Your task to perform on an android device: Search for usb-c on costco.com, select the first entry, add it to the cart, then select checkout. Image 0: 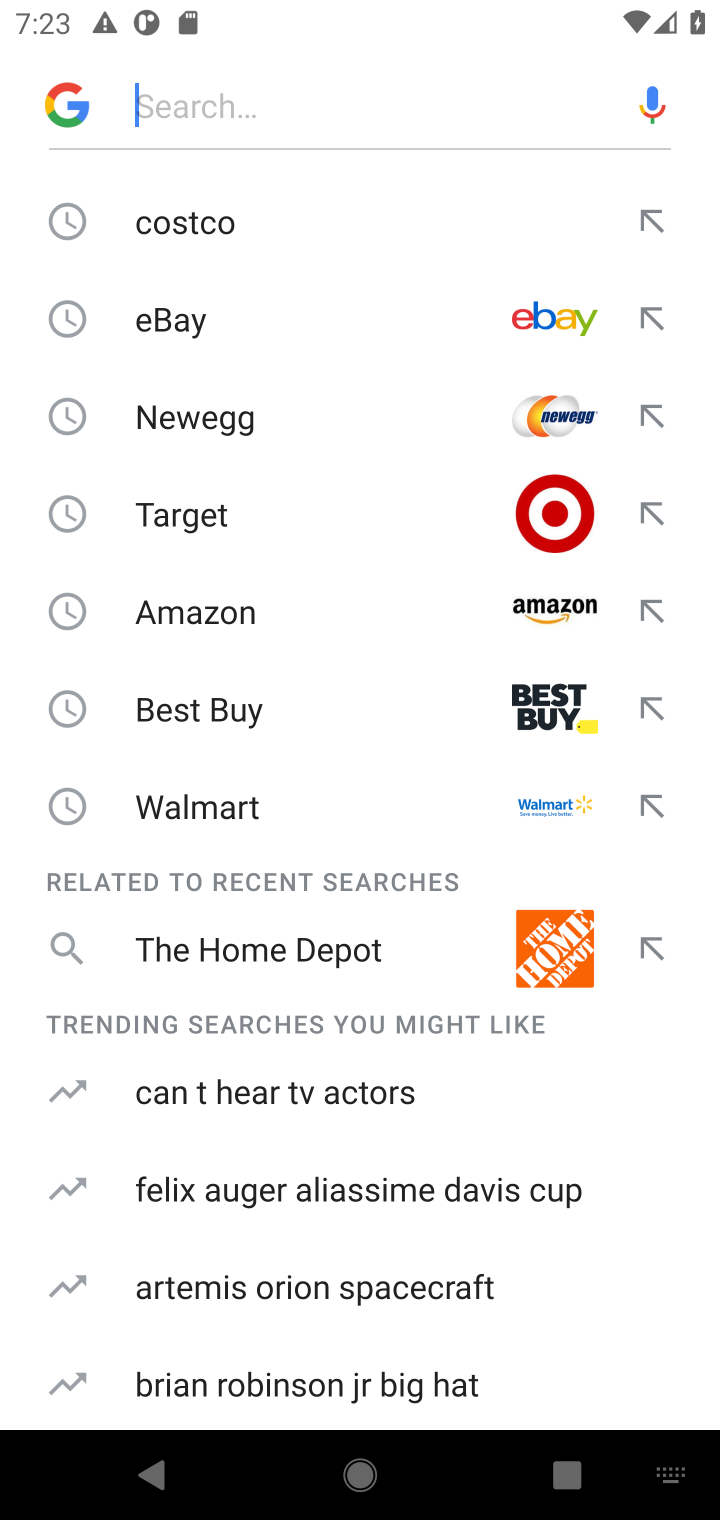
Step 0: press home button
Your task to perform on an android device: Search for usb-c on costco.com, select the first entry, add it to the cart, then select checkout. Image 1: 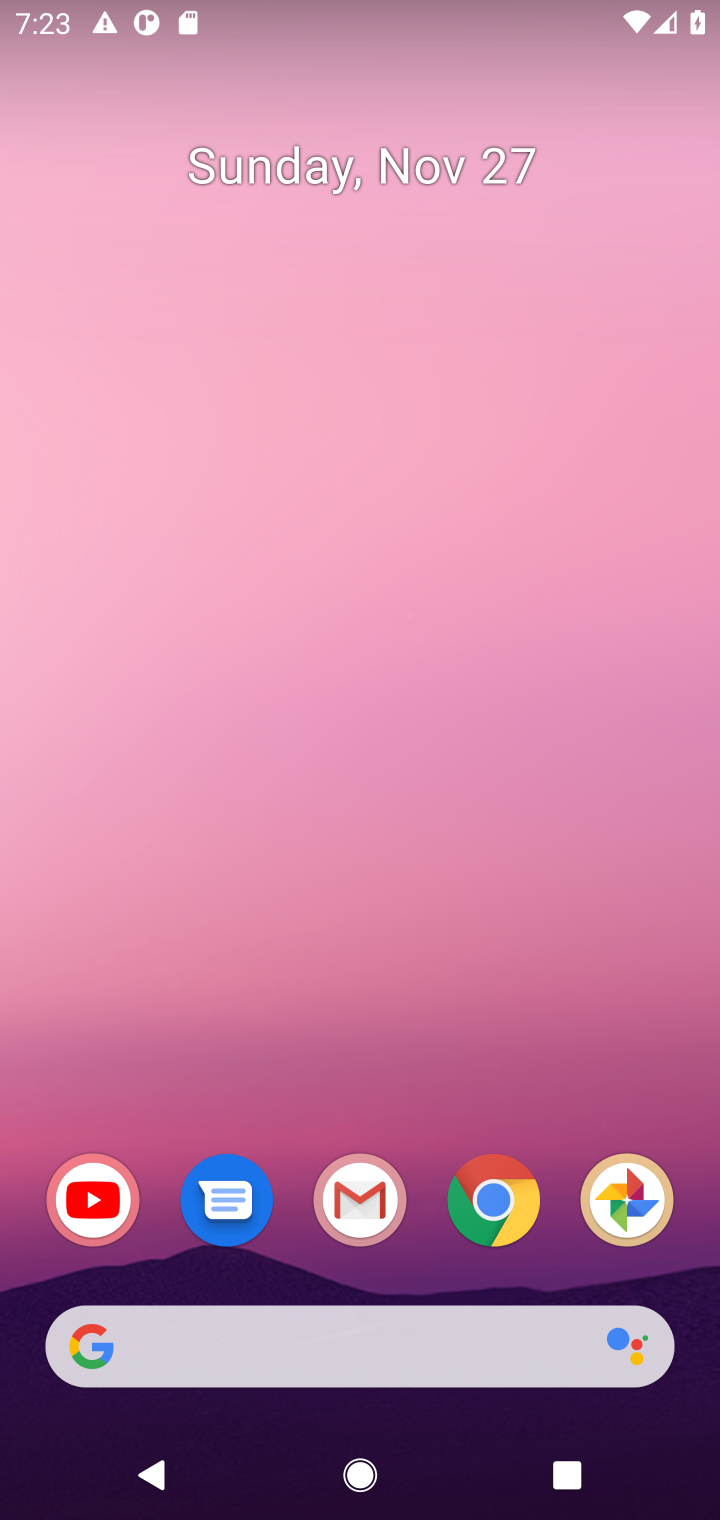
Step 1: click (497, 1197)
Your task to perform on an android device: Search for usb-c on costco.com, select the first entry, add it to the cart, then select checkout. Image 2: 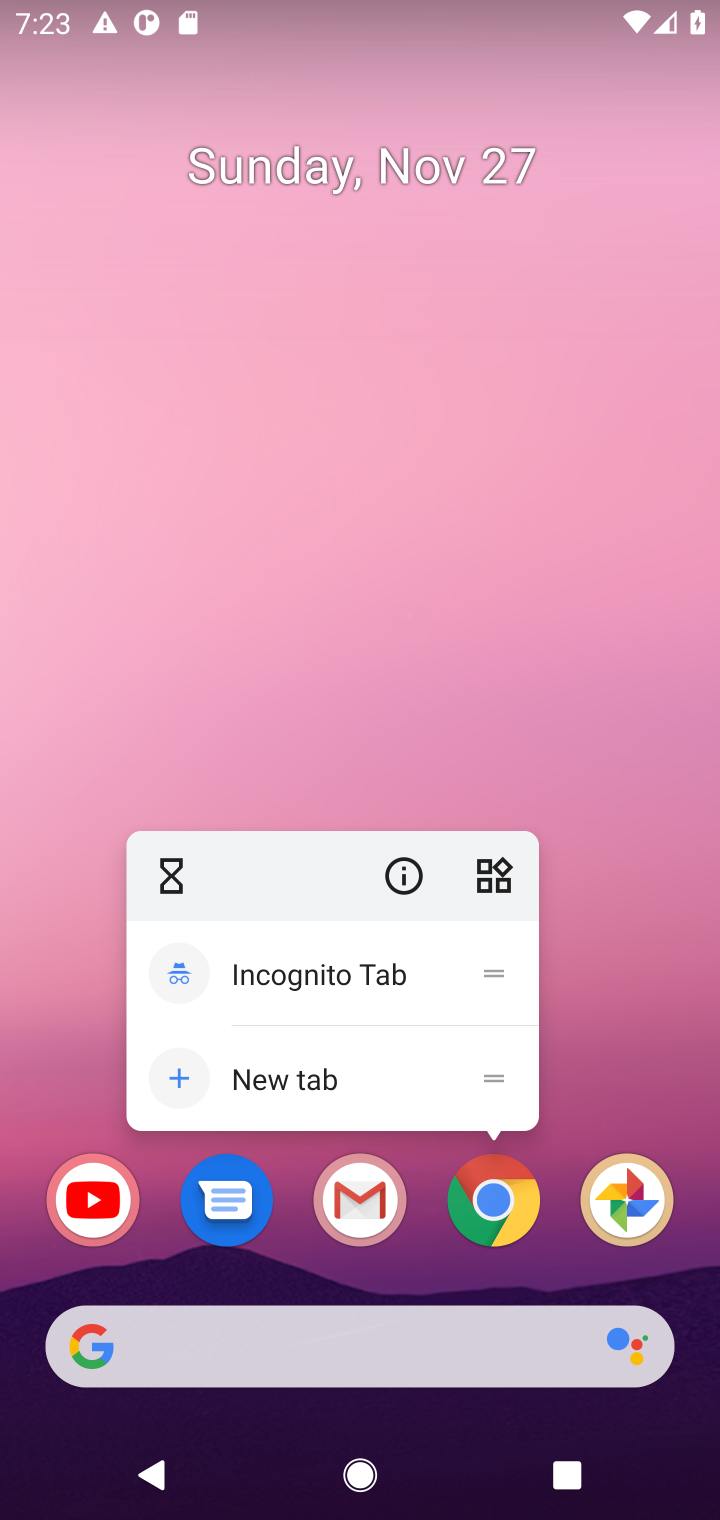
Step 2: click (497, 1197)
Your task to perform on an android device: Search for usb-c on costco.com, select the first entry, add it to the cart, then select checkout. Image 3: 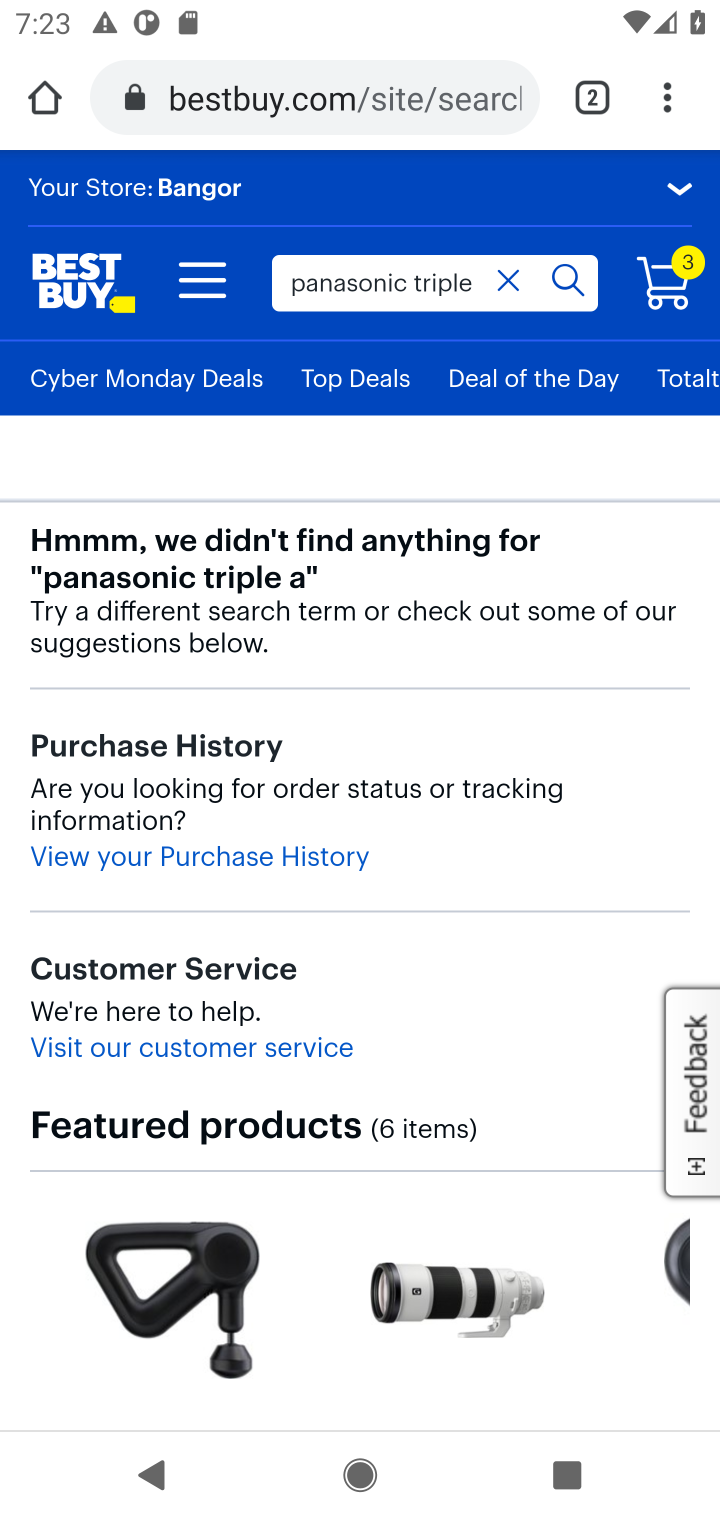
Step 3: click (282, 101)
Your task to perform on an android device: Search for usb-c on costco.com, select the first entry, add it to the cart, then select checkout. Image 4: 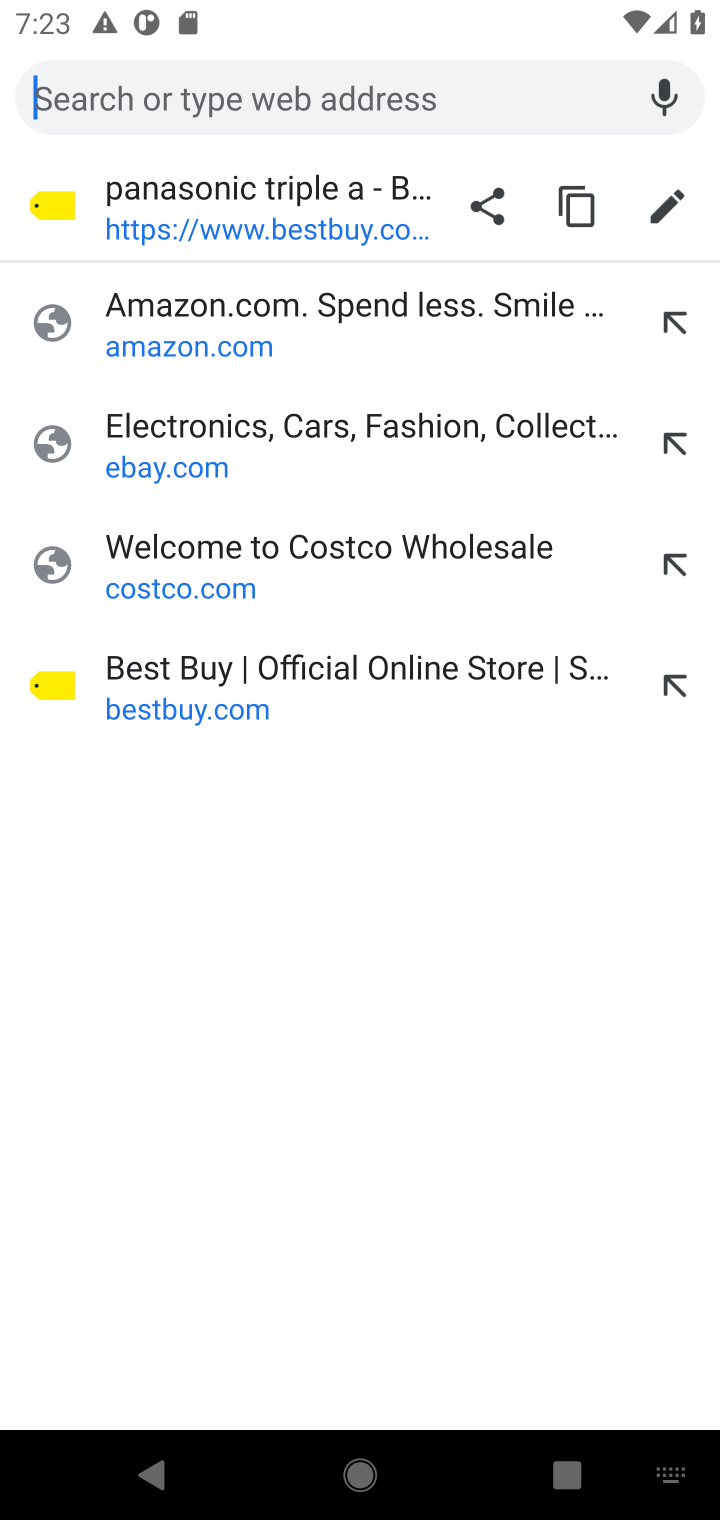
Step 4: click (173, 568)
Your task to perform on an android device: Search for usb-c on costco.com, select the first entry, add it to the cart, then select checkout. Image 5: 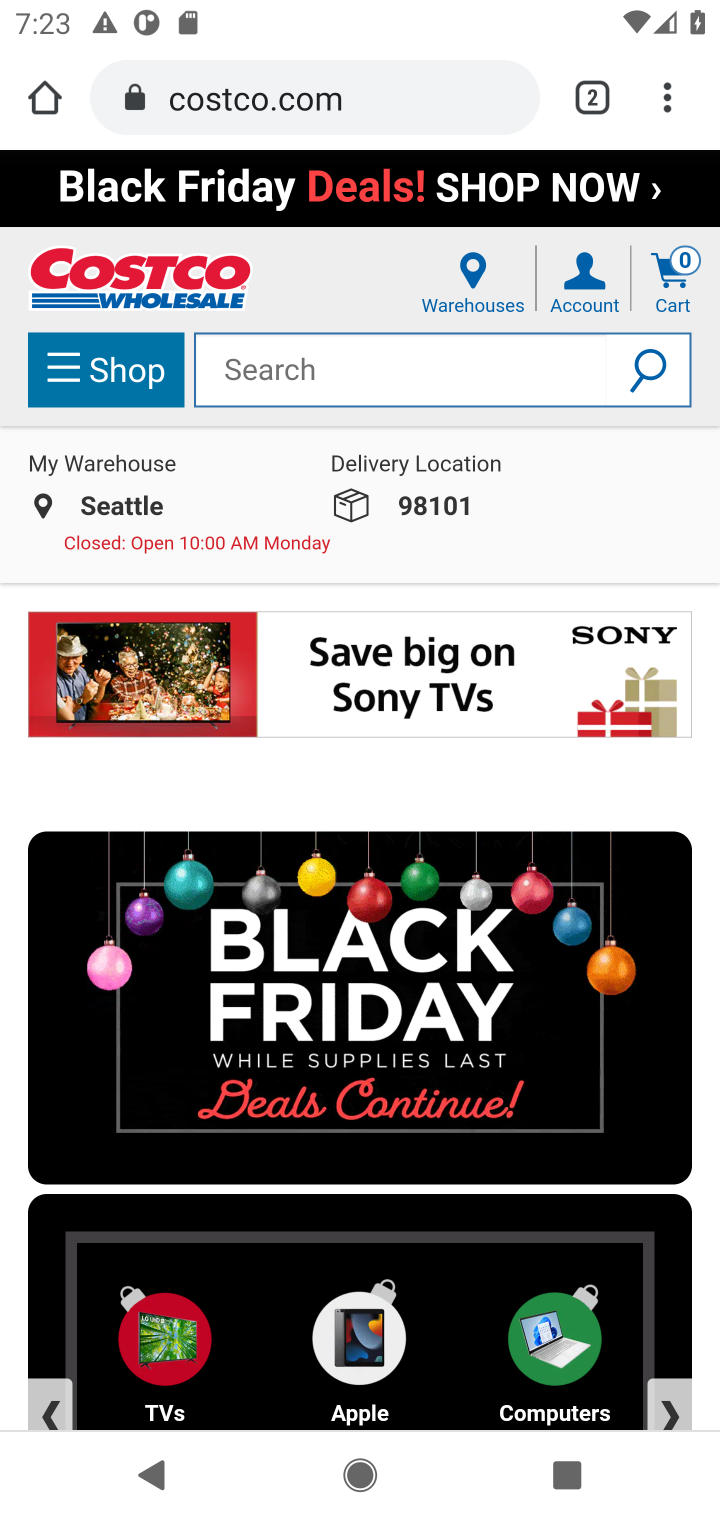
Step 5: click (355, 367)
Your task to perform on an android device: Search for usb-c on costco.com, select the first entry, add it to the cart, then select checkout. Image 6: 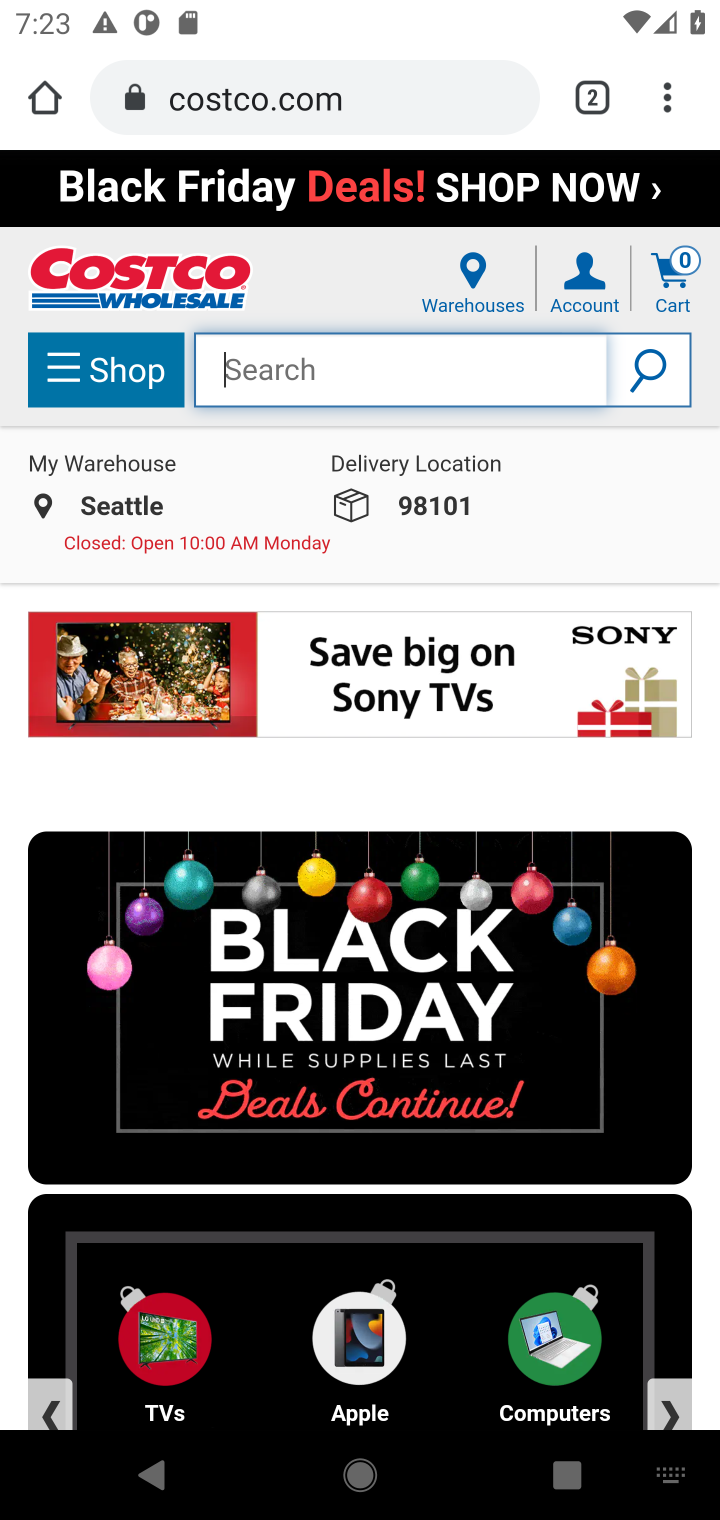
Step 6: type "usb-c"
Your task to perform on an android device: Search for usb-c on costco.com, select the first entry, add it to the cart, then select checkout. Image 7: 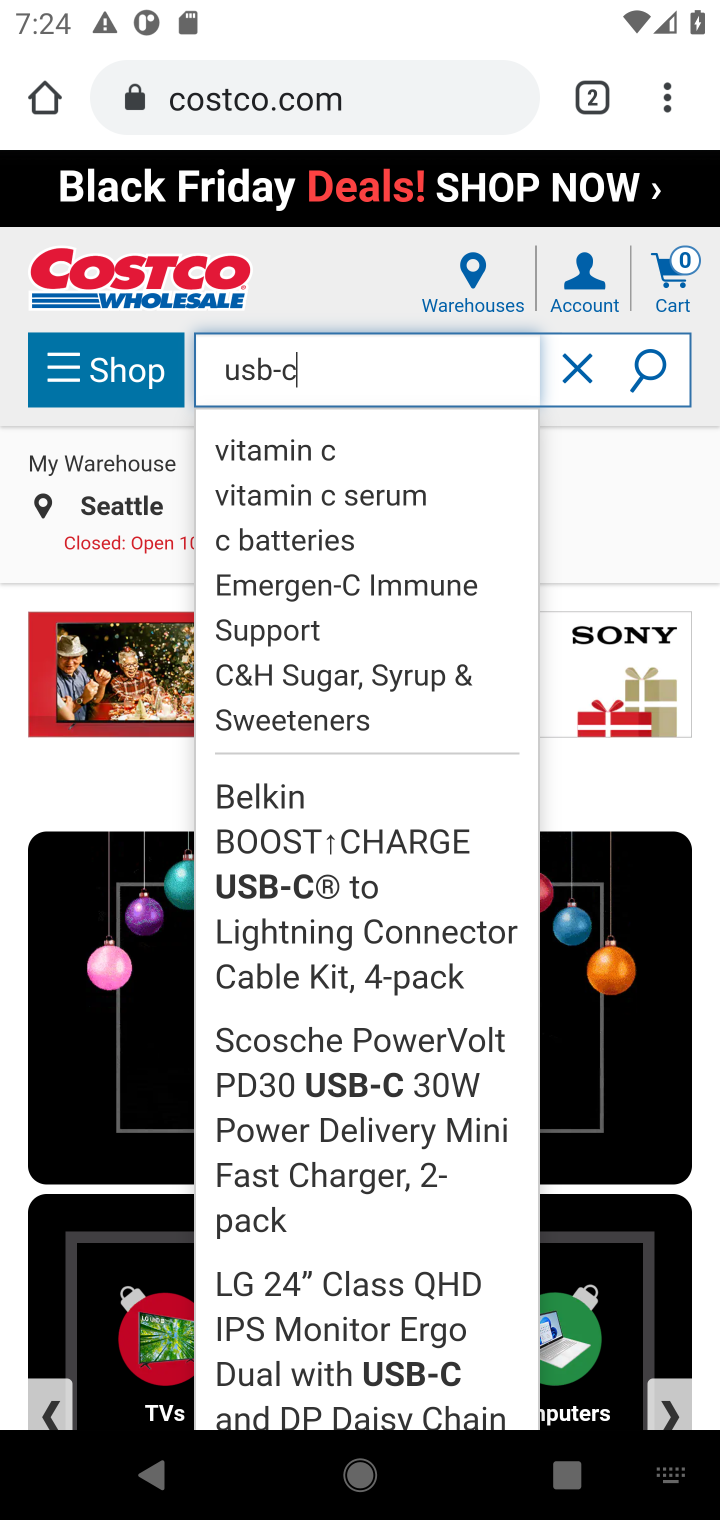
Step 7: click (665, 370)
Your task to perform on an android device: Search for usb-c on costco.com, select the first entry, add it to the cart, then select checkout. Image 8: 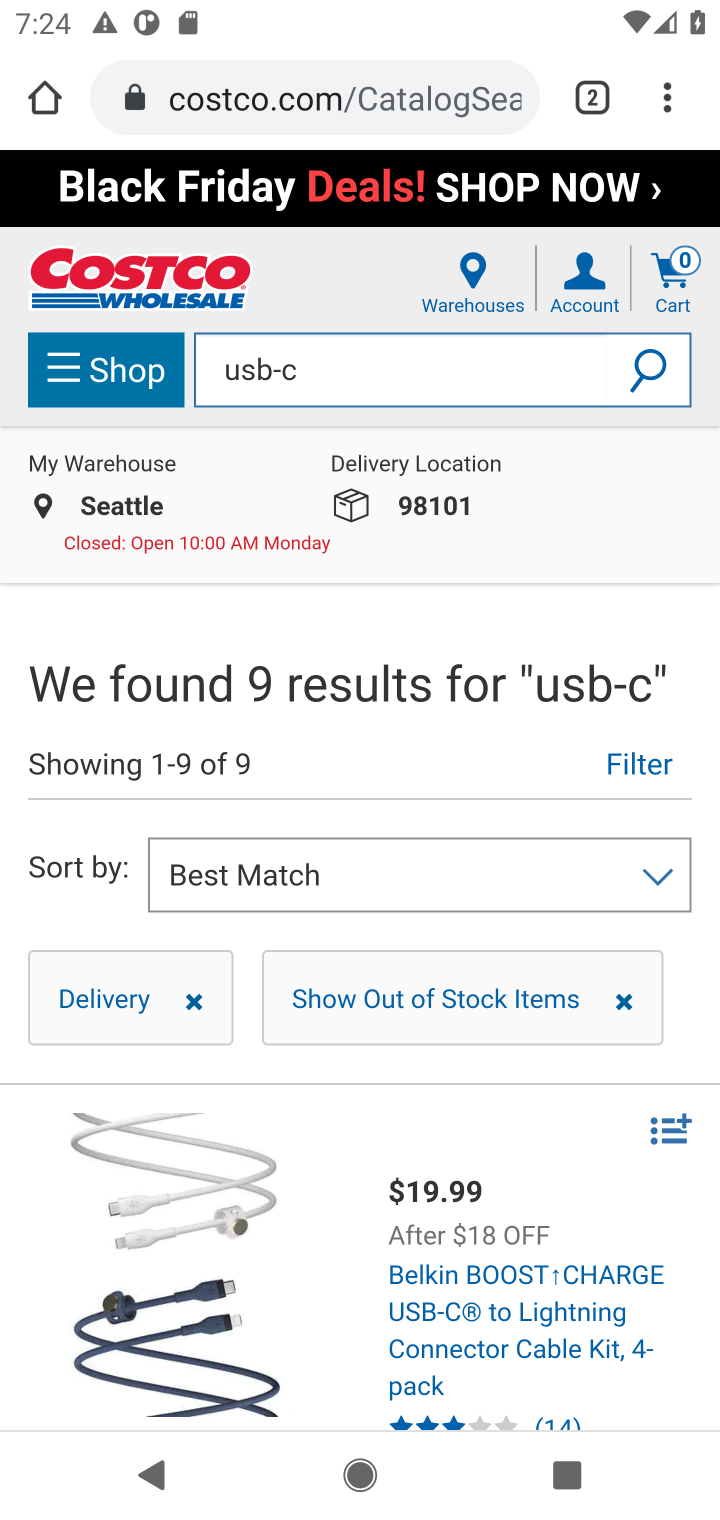
Step 8: drag from (263, 951) to (289, 502)
Your task to perform on an android device: Search for usb-c on costco.com, select the first entry, add it to the cart, then select checkout. Image 9: 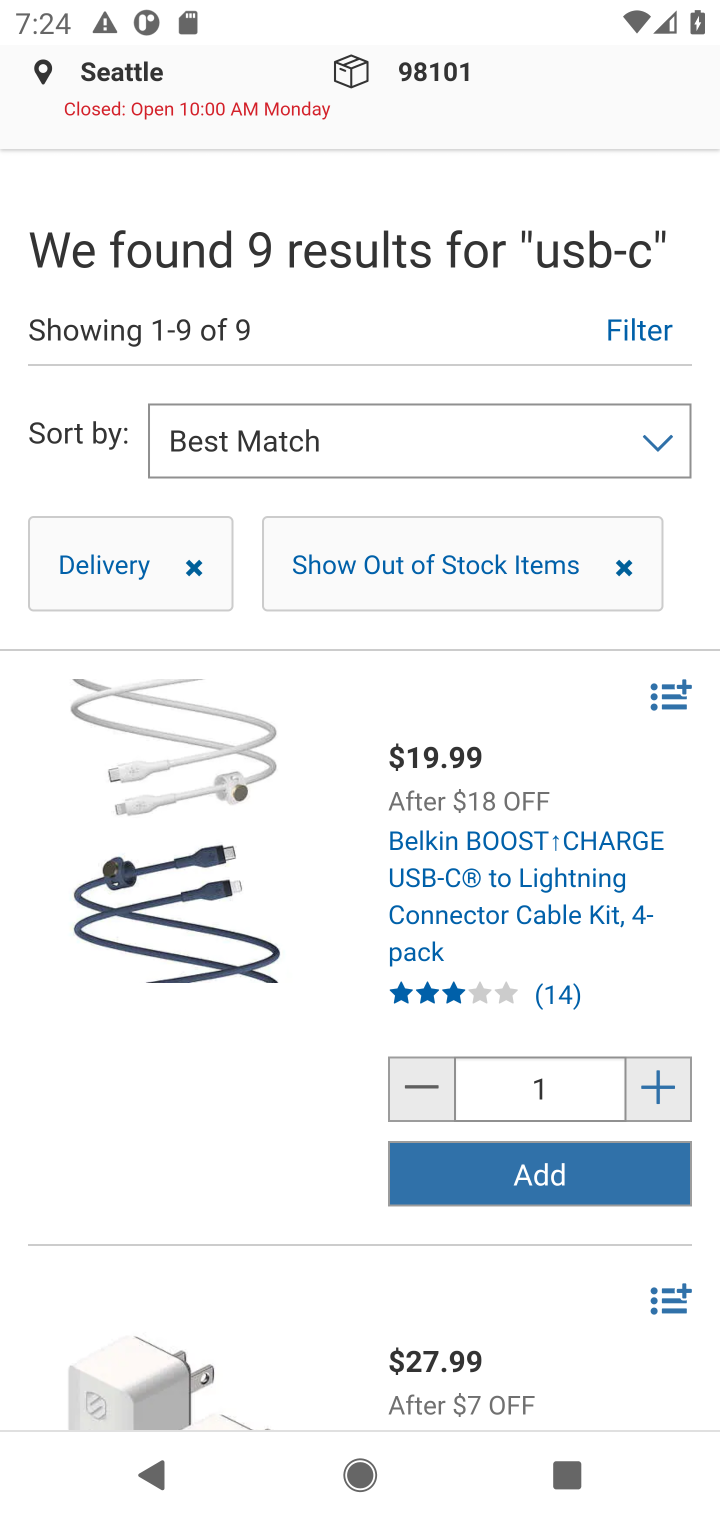
Step 9: click (538, 1173)
Your task to perform on an android device: Search for usb-c on costco.com, select the first entry, add it to the cart, then select checkout. Image 10: 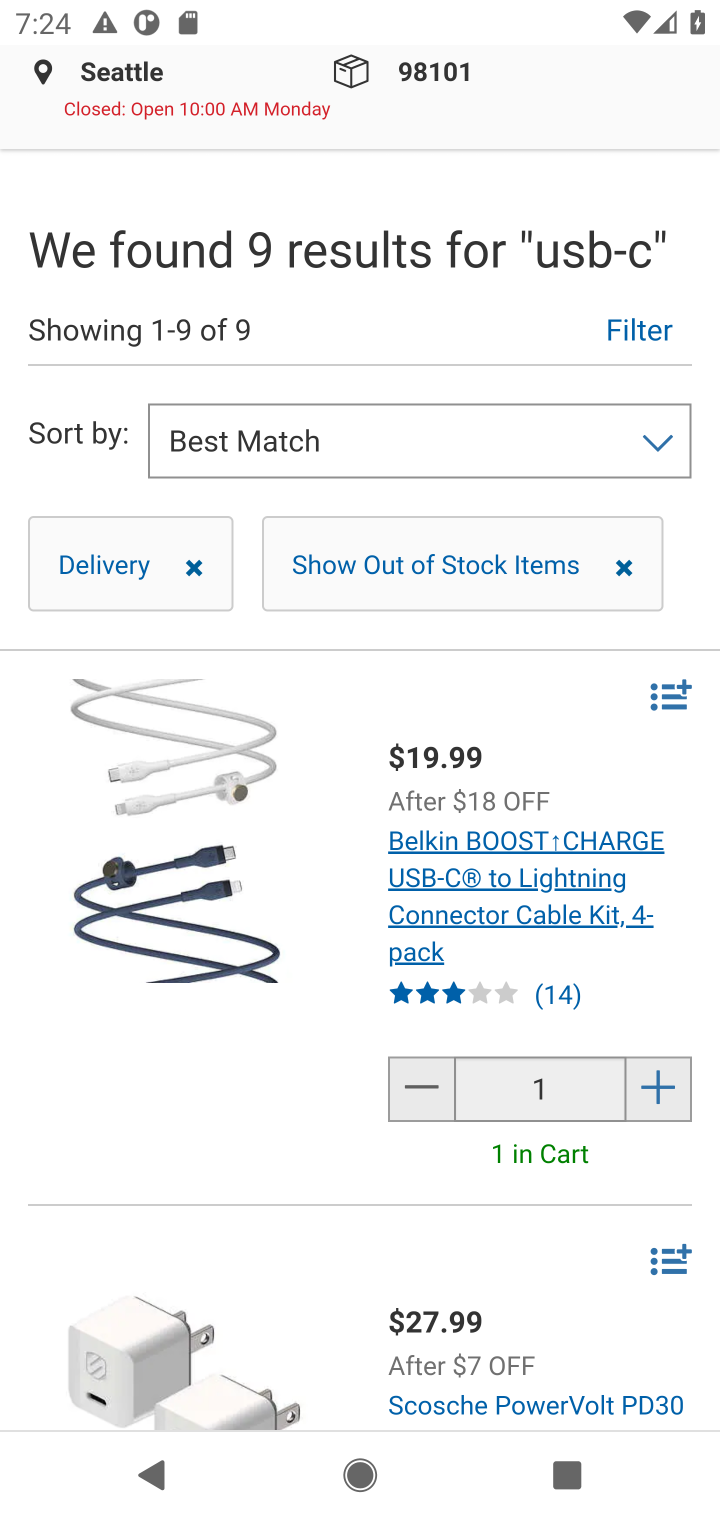
Step 10: drag from (453, 359) to (425, 971)
Your task to perform on an android device: Search for usb-c on costco.com, select the first entry, add it to the cart, then select checkout. Image 11: 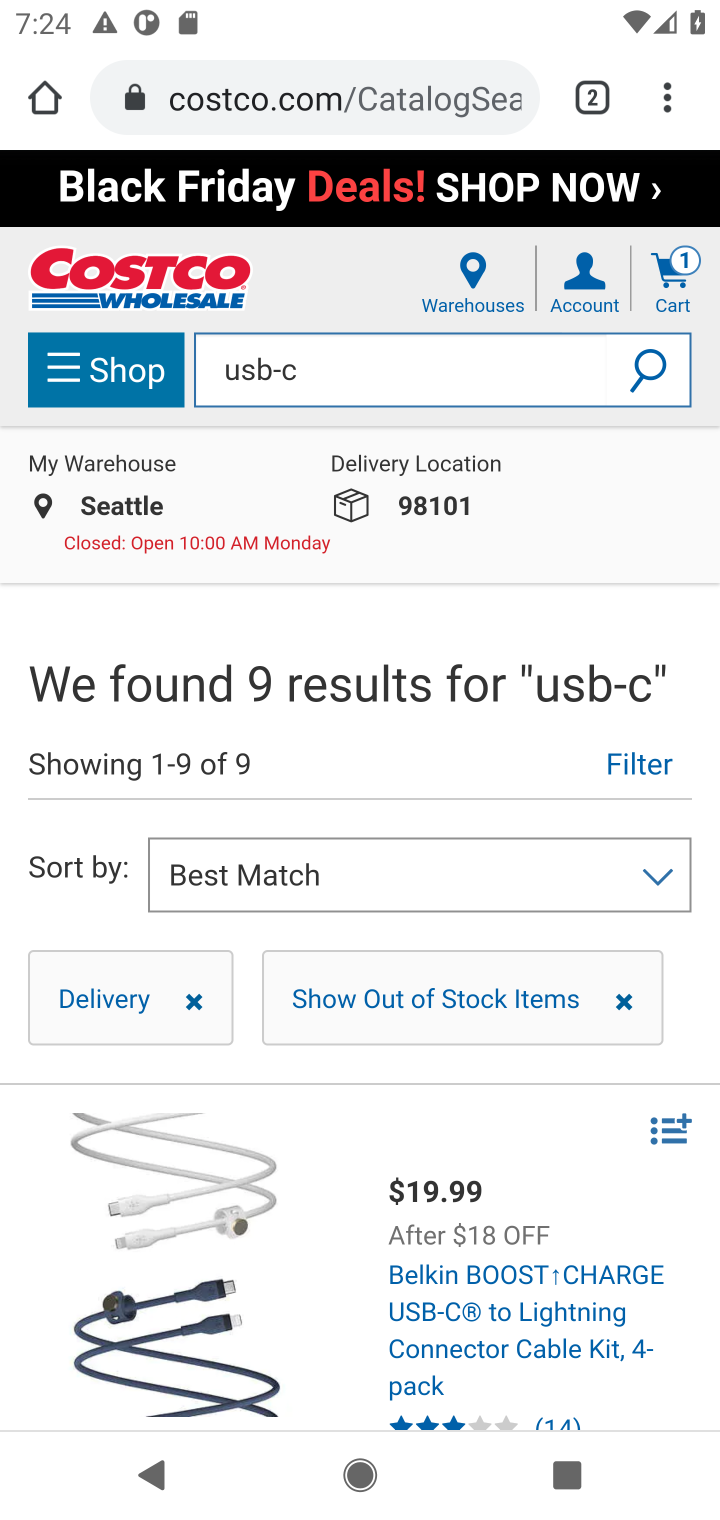
Step 11: click (665, 272)
Your task to perform on an android device: Search for usb-c on costco.com, select the first entry, add it to the cart, then select checkout. Image 12: 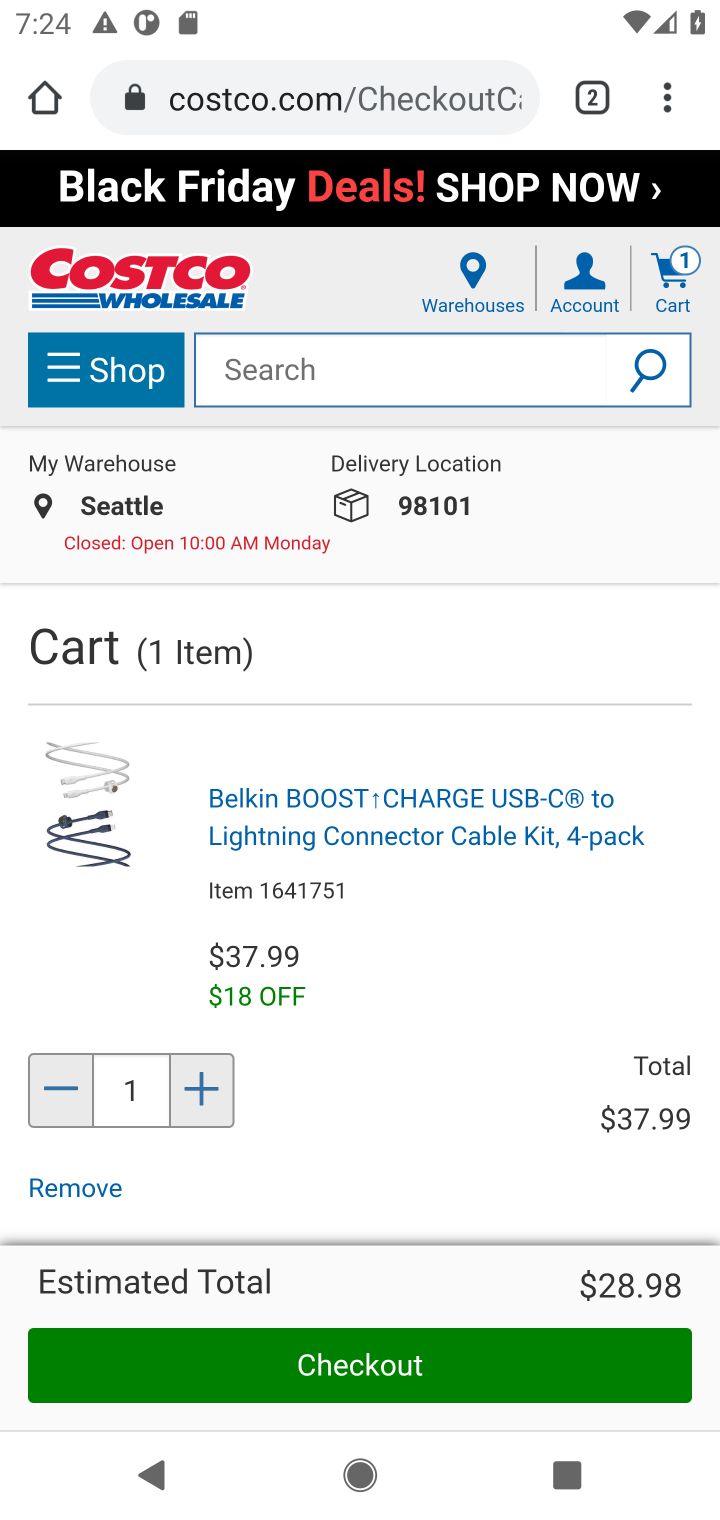
Step 12: click (355, 1354)
Your task to perform on an android device: Search for usb-c on costco.com, select the first entry, add it to the cart, then select checkout. Image 13: 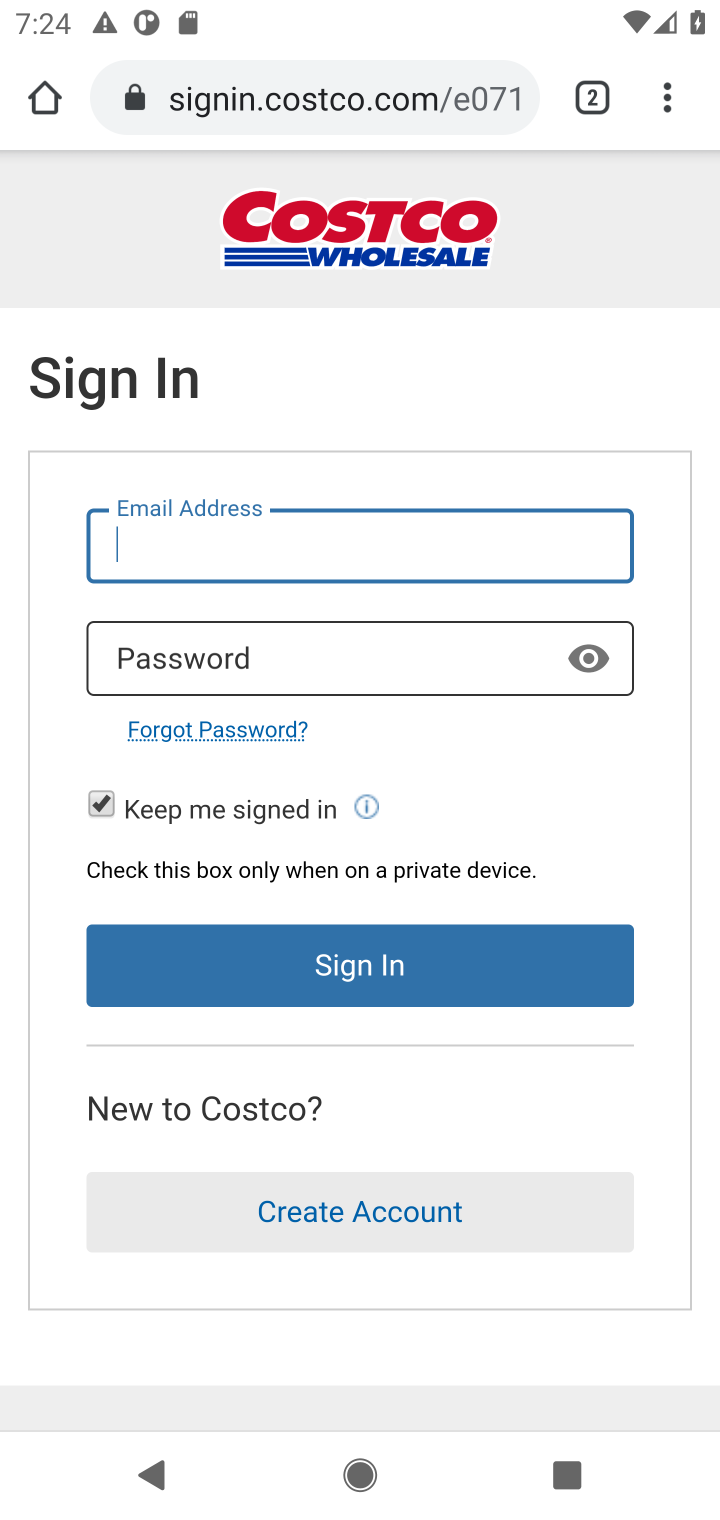
Step 13: task complete